Your task to perform on an android device: Open calendar and show me the second week of next month Image 0: 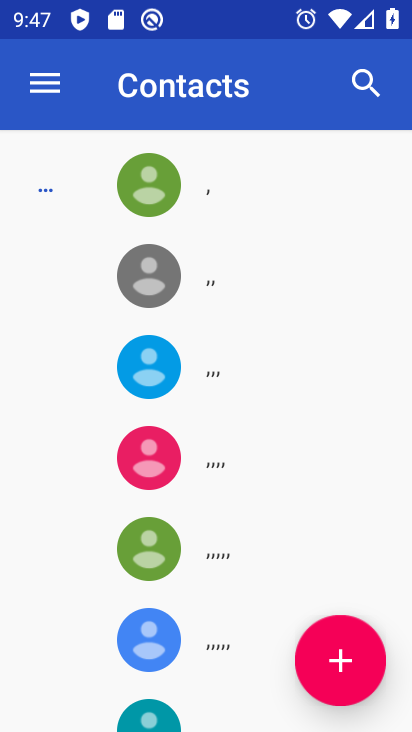
Step 0: press home button
Your task to perform on an android device: Open calendar and show me the second week of next month Image 1: 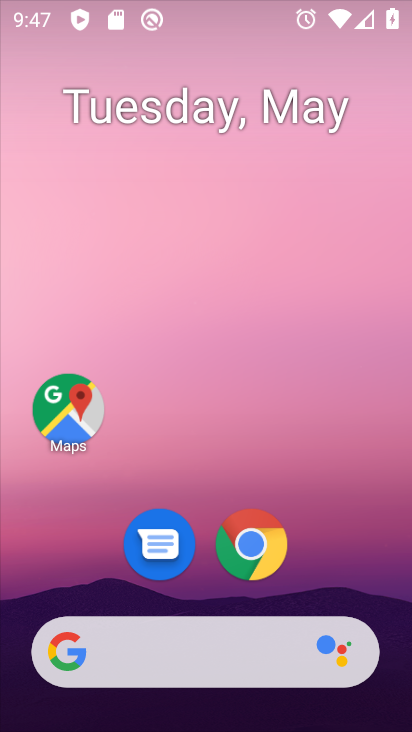
Step 1: drag from (377, 558) to (337, 203)
Your task to perform on an android device: Open calendar and show me the second week of next month Image 2: 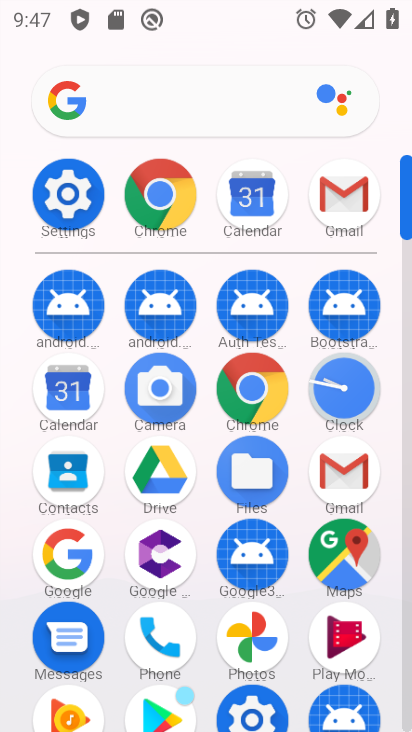
Step 2: click (57, 419)
Your task to perform on an android device: Open calendar and show me the second week of next month Image 3: 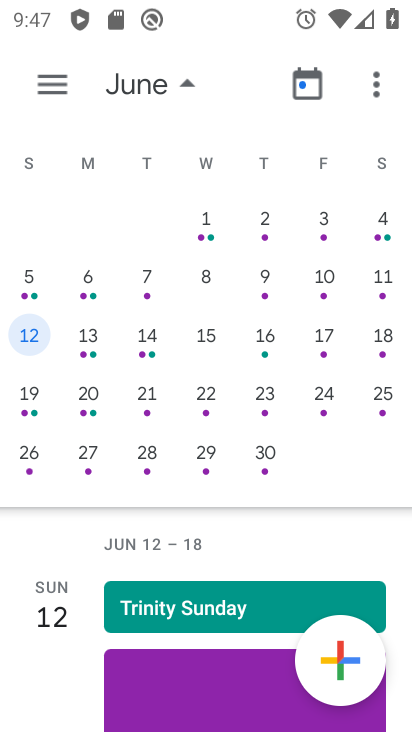
Step 3: click (39, 286)
Your task to perform on an android device: Open calendar and show me the second week of next month Image 4: 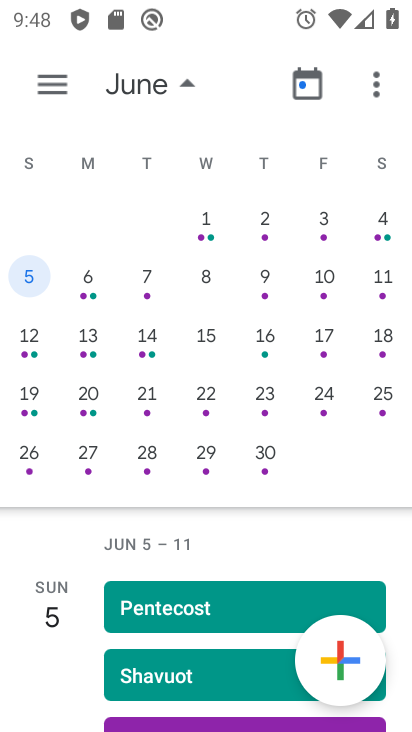
Step 4: task complete